Your task to perform on an android device: Open accessibility settings Image 0: 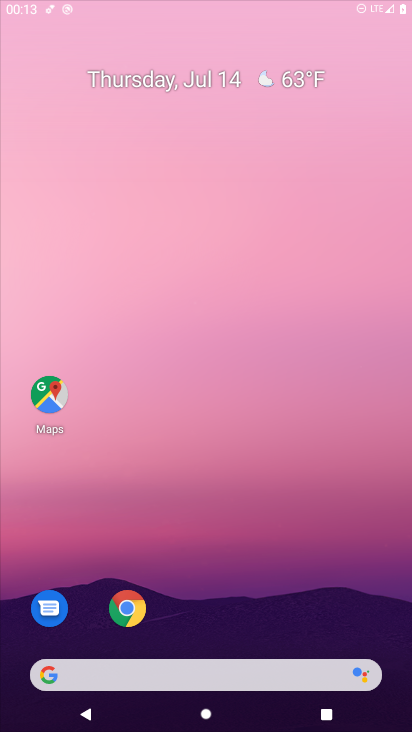
Step 0: press home button
Your task to perform on an android device: Open accessibility settings Image 1: 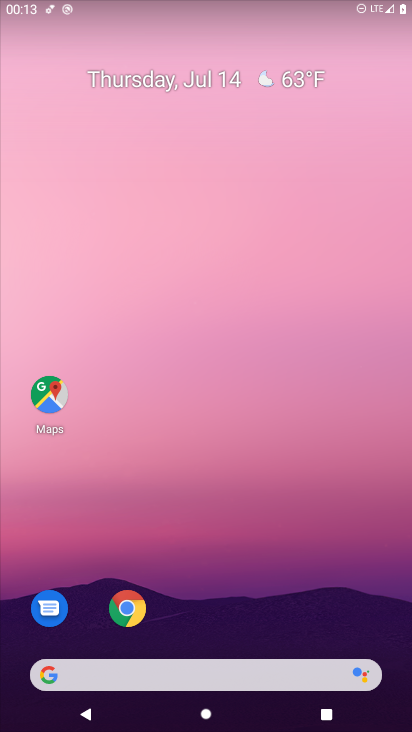
Step 1: drag from (261, 636) to (164, 13)
Your task to perform on an android device: Open accessibility settings Image 2: 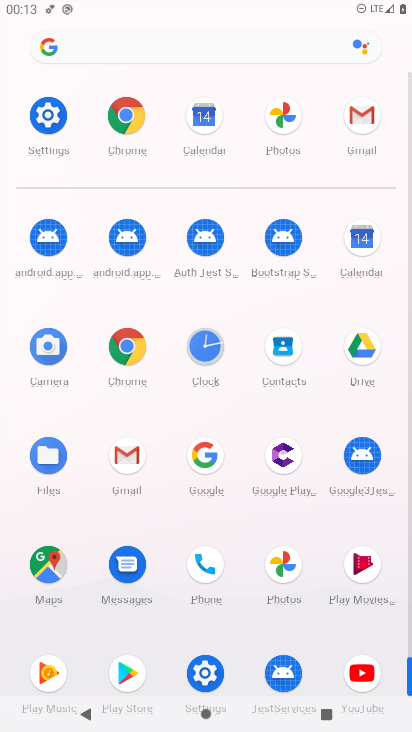
Step 2: click (46, 121)
Your task to perform on an android device: Open accessibility settings Image 3: 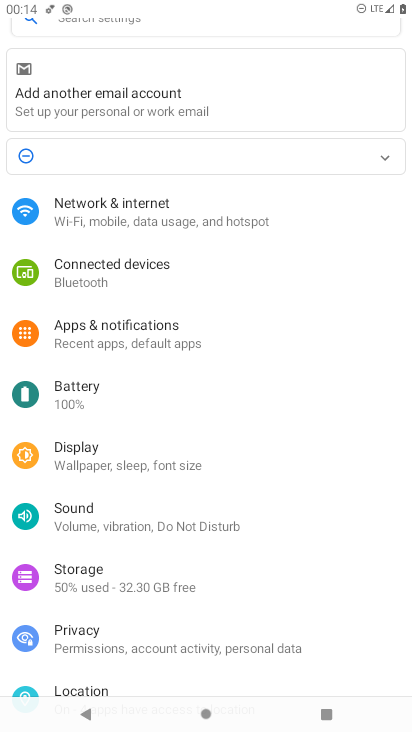
Step 3: drag from (343, 583) to (304, 181)
Your task to perform on an android device: Open accessibility settings Image 4: 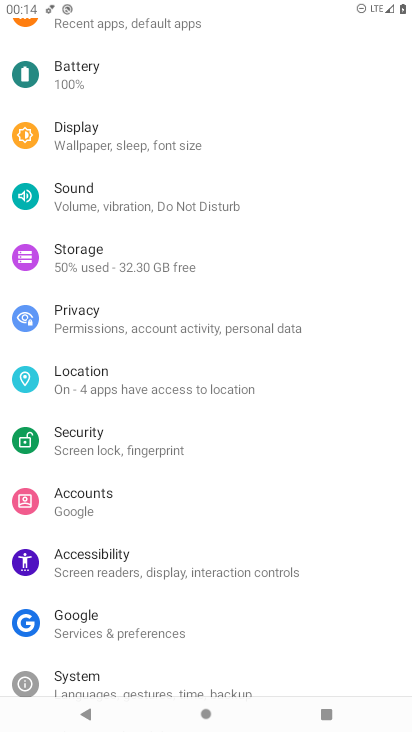
Step 4: click (92, 562)
Your task to perform on an android device: Open accessibility settings Image 5: 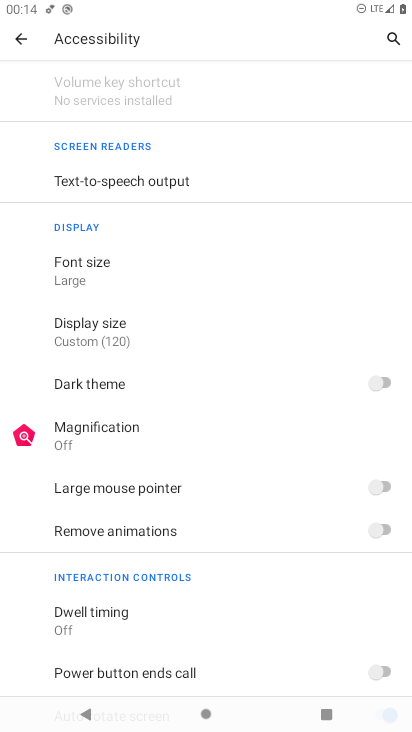
Step 5: task complete